Your task to perform on an android device: add a contact in the contacts app Image 0: 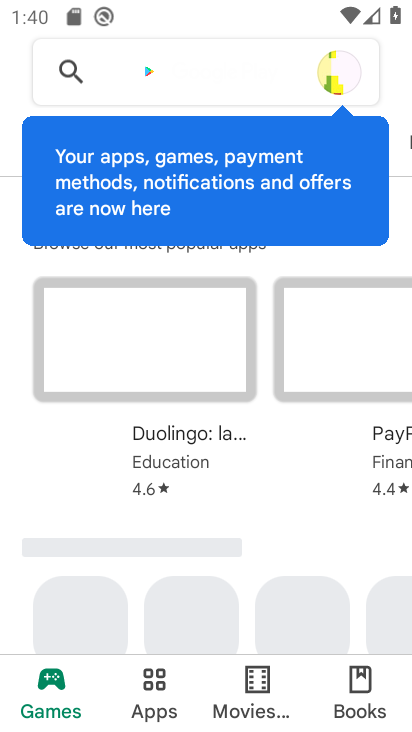
Step 0: press home button
Your task to perform on an android device: add a contact in the contacts app Image 1: 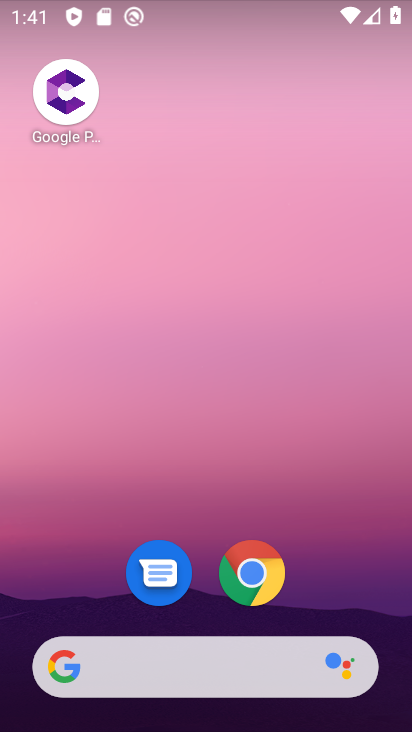
Step 1: drag from (338, 584) to (305, 17)
Your task to perform on an android device: add a contact in the contacts app Image 2: 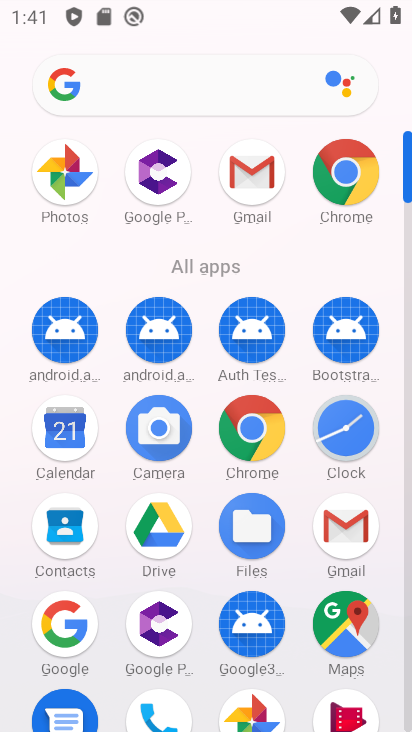
Step 2: click (66, 542)
Your task to perform on an android device: add a contact in the contacts app Image 3: 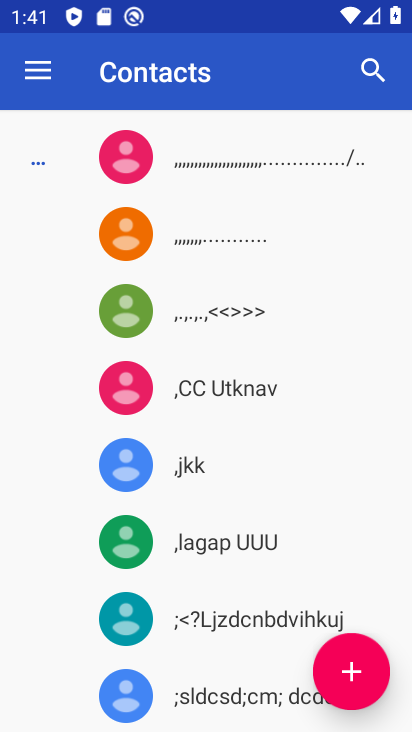
Step 3: click (331, 687)
Your task to perform on an android device: add a contact in the contacts app Image 4: 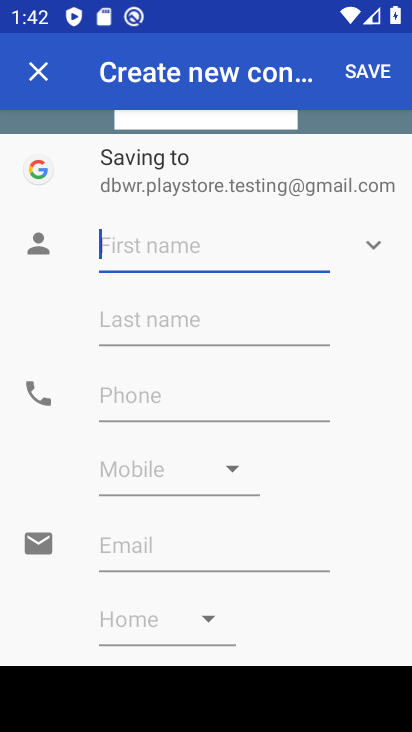
Step 4: type "anad"
Your task to perform on an android device: add a contact in the contacts app Image 5: 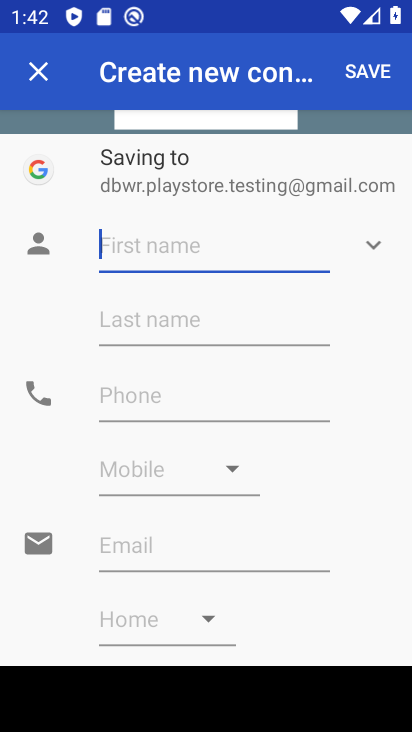
Step 5: click (360, 64)
Your task to perform on an android device: add a contact in the contacts app Image 6: 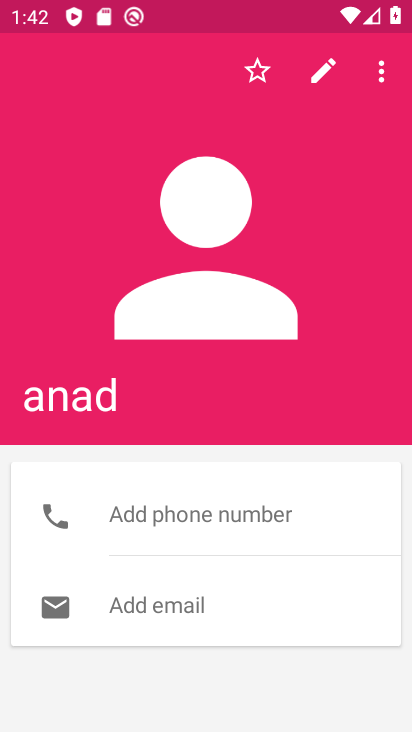
Step 6: task complete